Your task to perform on an android device: uninstall "Google Play Games" Image 0: 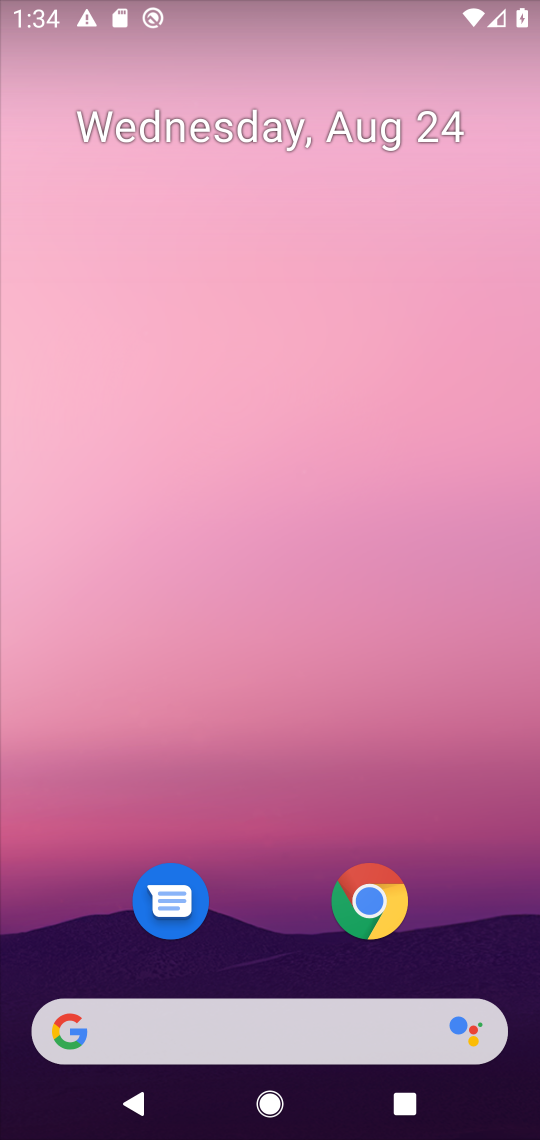
Step 0: drag from (268, 944) to (368, 44)
Your task to perform on an android device: uninstall "Google Play Games" Image 1: 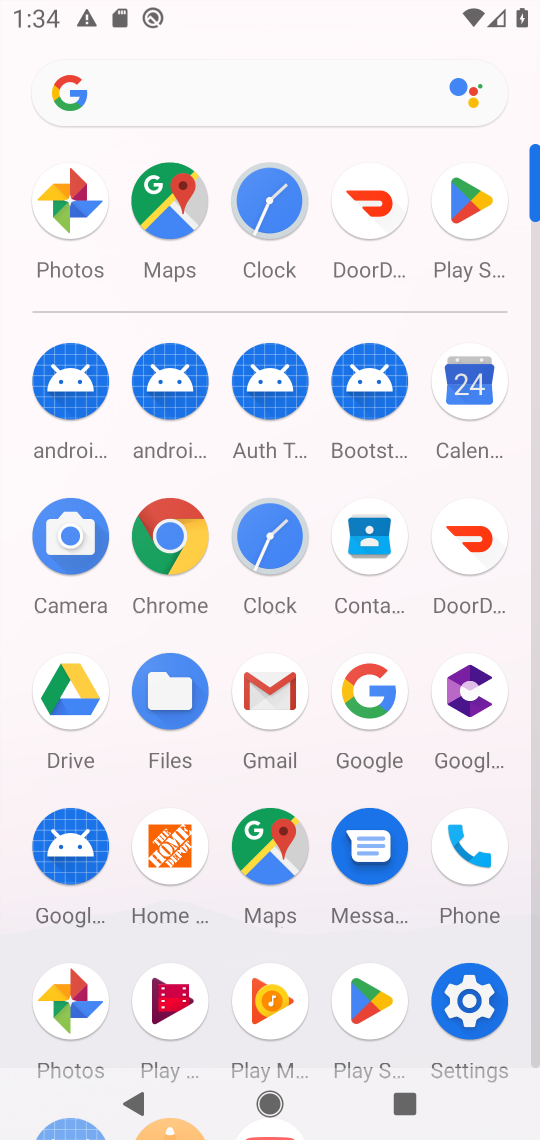
Step 1: click (489, 198)
Your task to perform on an android device: uninstall "Google Play Games" Image 2: 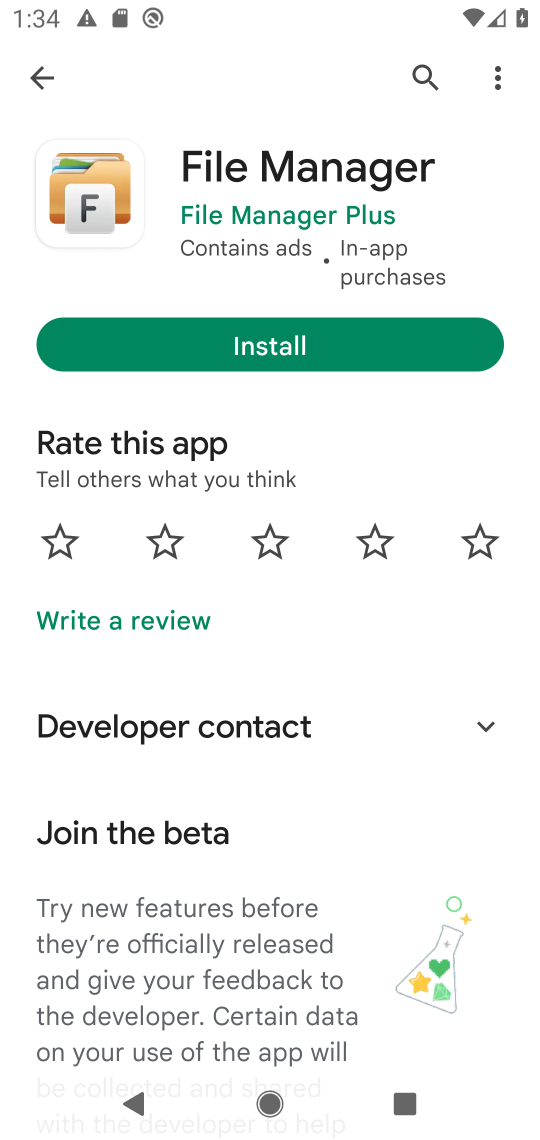
Step 2: click (429, 73)
Your task to perform on an android device: uninstall "Google Play Games" Image 3: 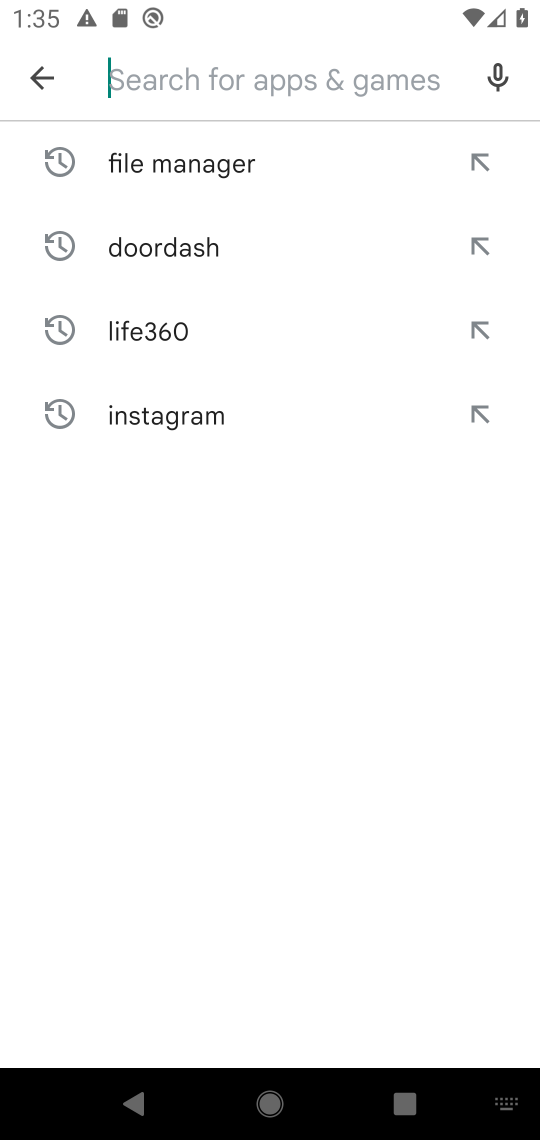
Step 3: click (210, 75)
Your task to perform on an android device: uninstall "Google Play Games" Image 4: 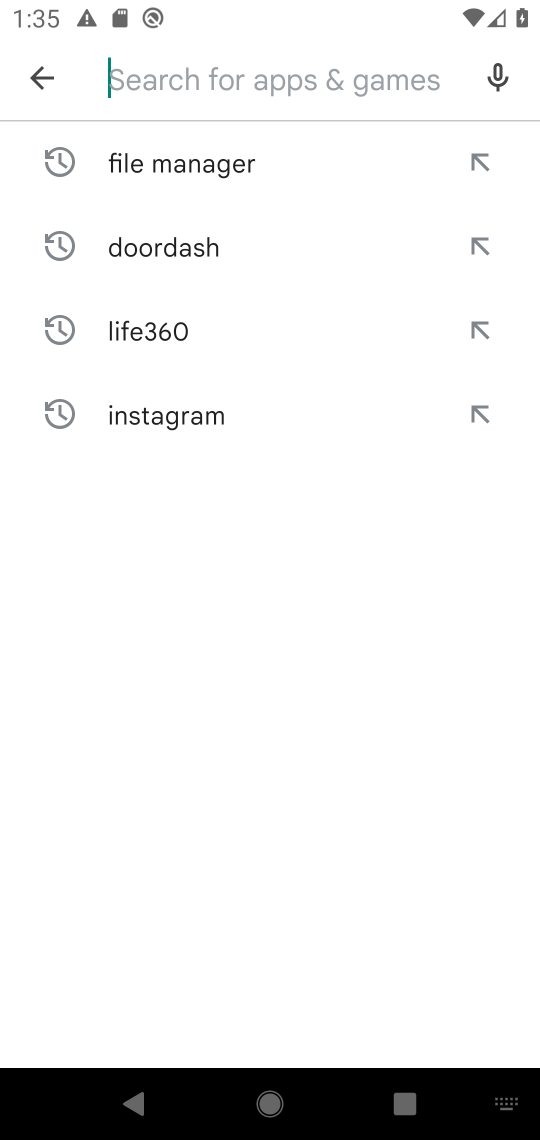
Step 4: type "Google Play Games"
Your task to perform on an android device: uninstall "Google Play Games" Image 5: 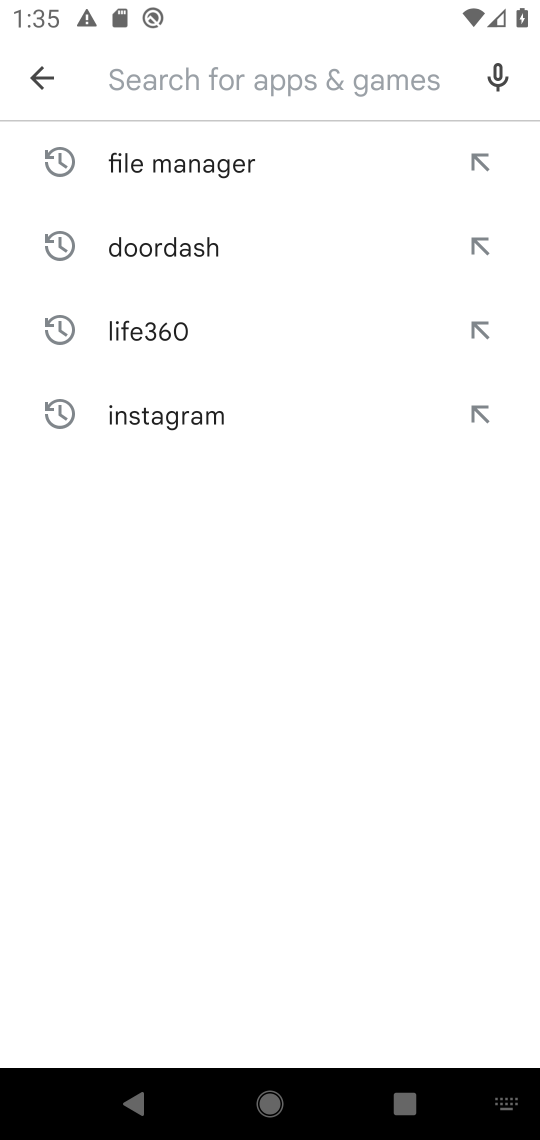
Step 5: click (221, 739)
Your task to perform on an android device: uninstall "Google Play Games" Image 6: 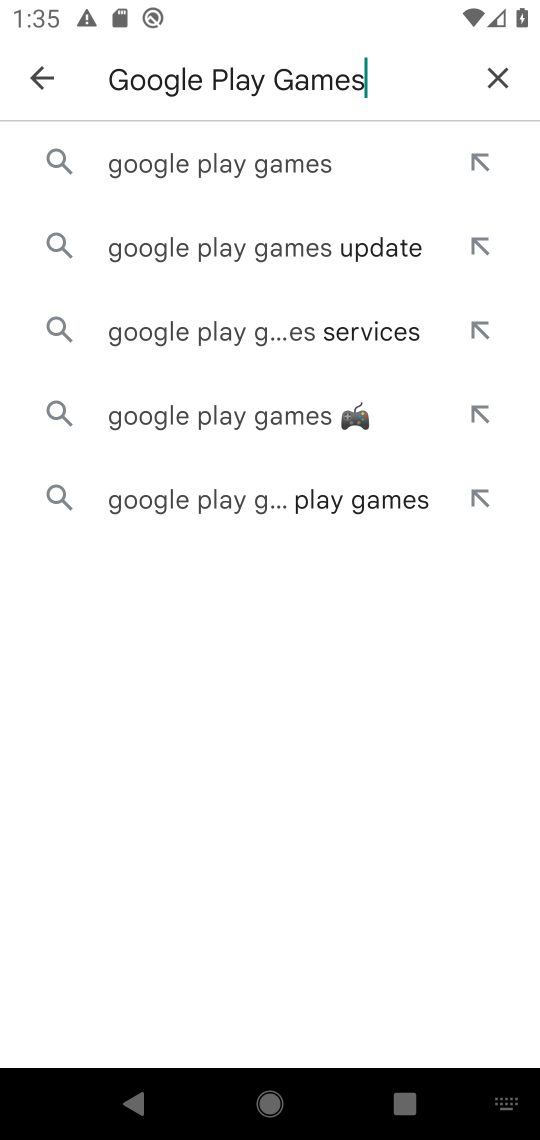
Step 6: click (303, 158)
Your task to perform on an android device: uninstall "Google Play Games" Image 7: 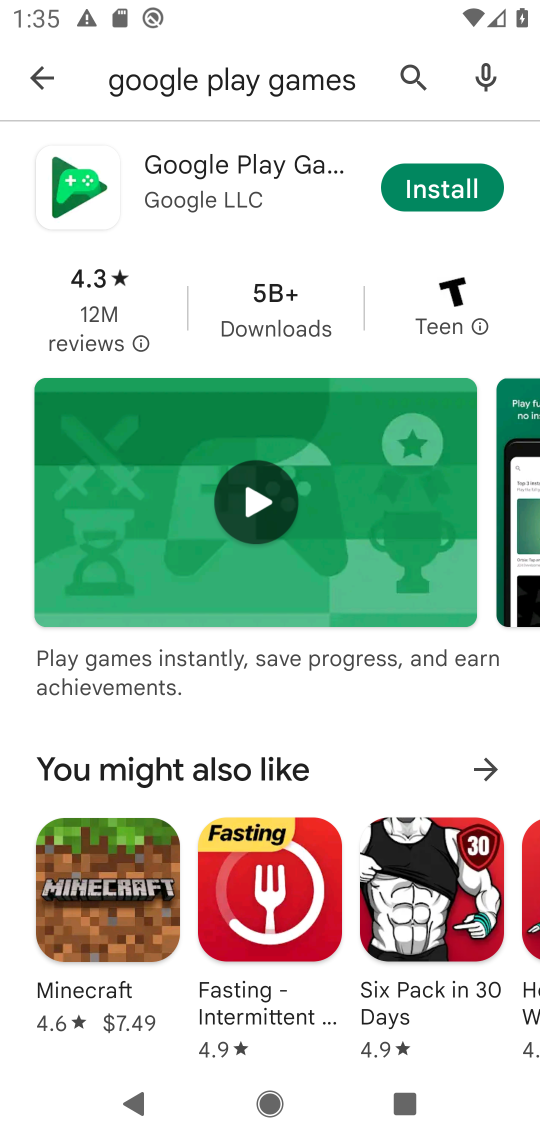
Step 7: click (178, 188)
Your task to perform on an android device: uninstall "Google Play Games" Image 8: 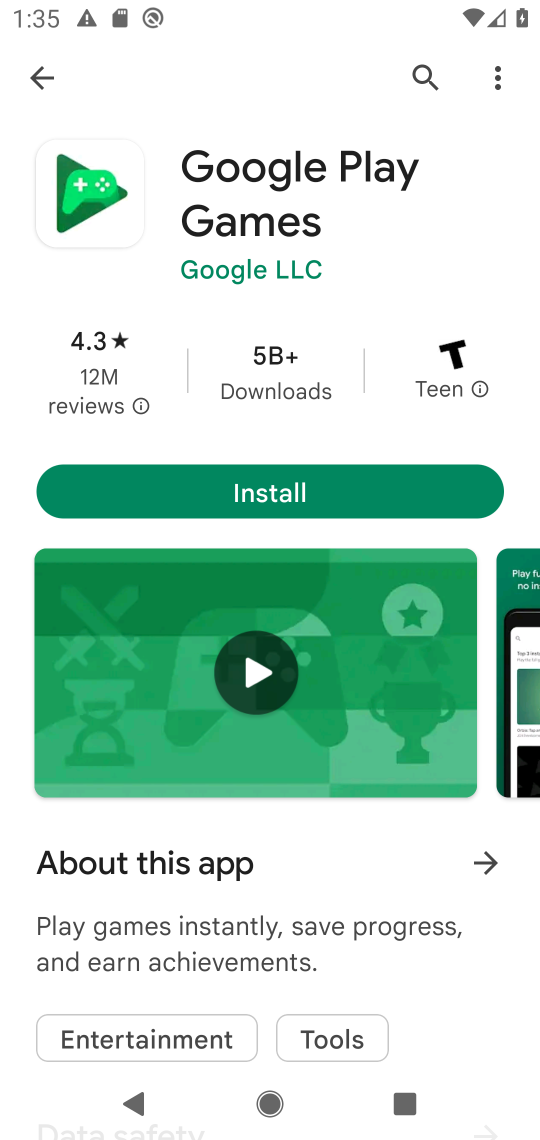
Step 8: task complete